Your task to perform on an android device: Open battery settings Image 0: 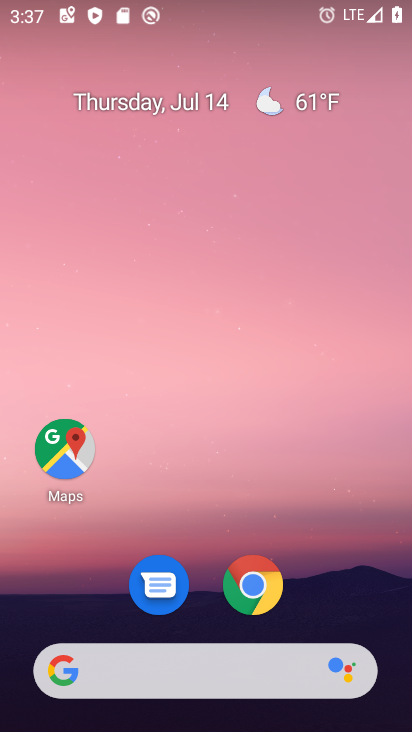
Step 0: drag from (329, 475) to (346, 51)
Your task to perform on an android device: Open battery settings Image 1: 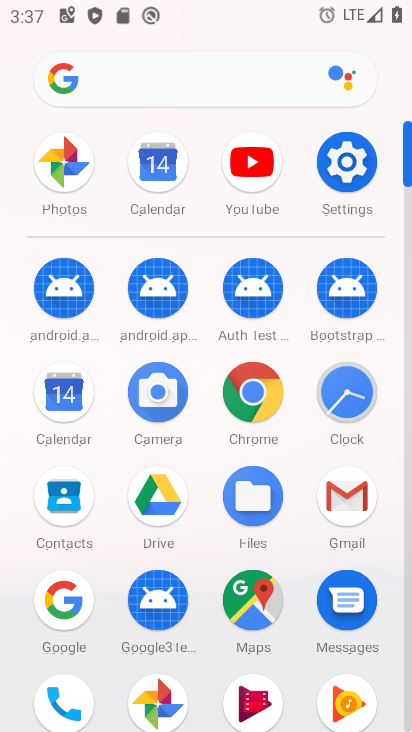
Step 1: click (345, 153)
Your task to perform on an android device: Open battery settings Image 2: 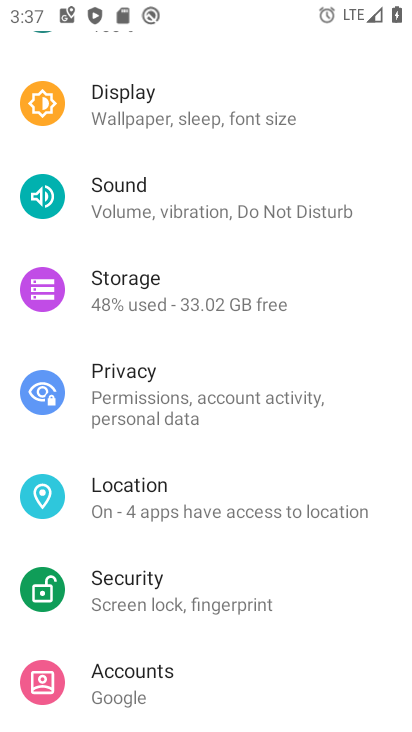
Step 2: drag from (232, 257) to (220, 471)
Your task to perform on an android device: Open battery settings Image 3: 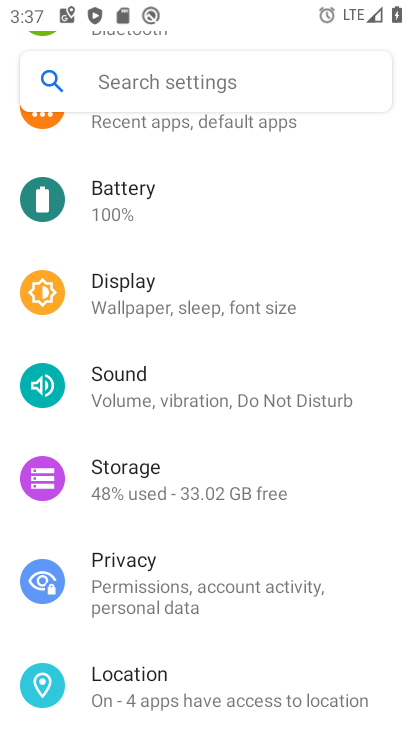
Step 3: click (129, 195)
Your task to perform on an android device: Open battery settings Image 4: 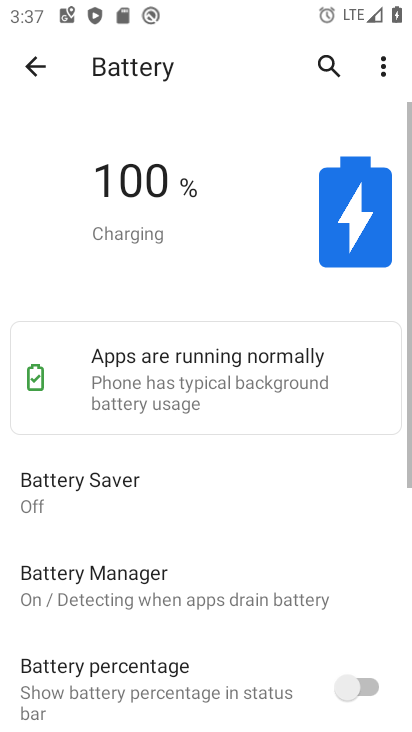
Step 4: task complete